Your task to perform on an android device: open wifi settings Image 0: 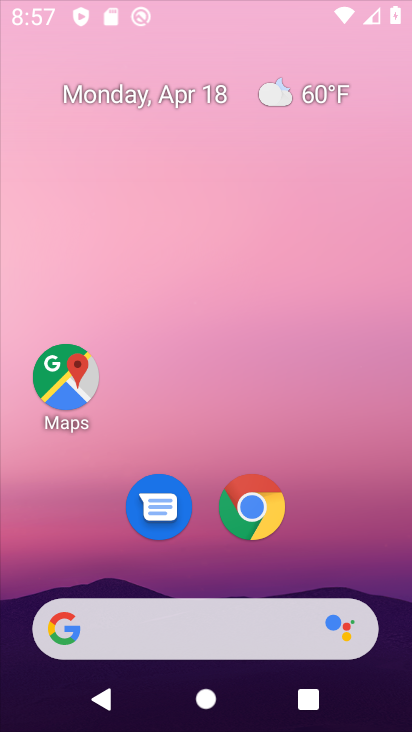
Step 0: drag from (123, 409) to (411, 400)
Your task to perform on an android device: open wifi settings Image 1: 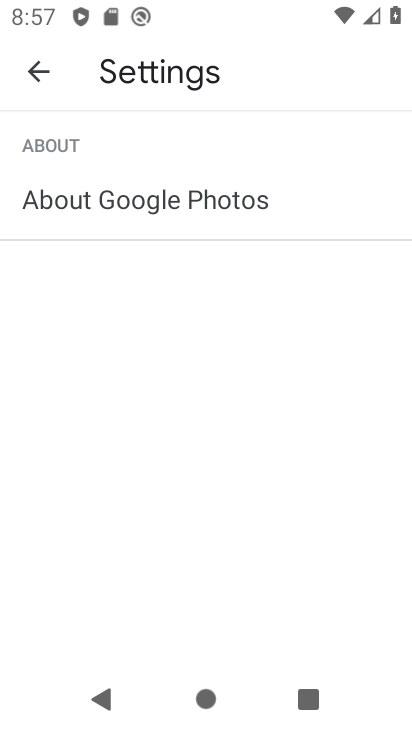
Step 1: press home button
Your task to perform on an android device: open wifi settings Image 2: 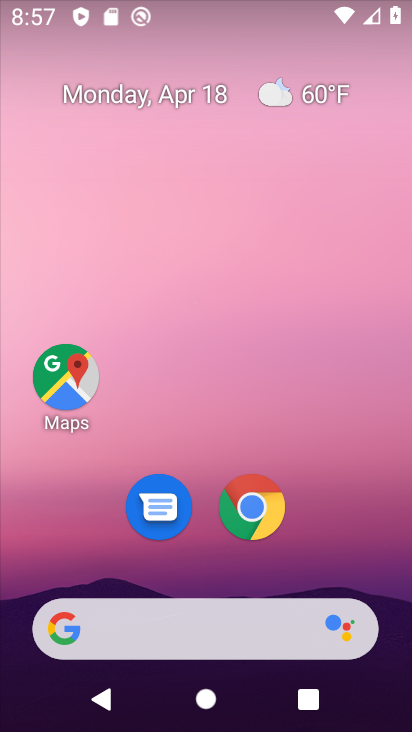
Step 2: drag from (325, 525) to (301, 138)
Your task to perform on an android device: open wifi settings Image 3: 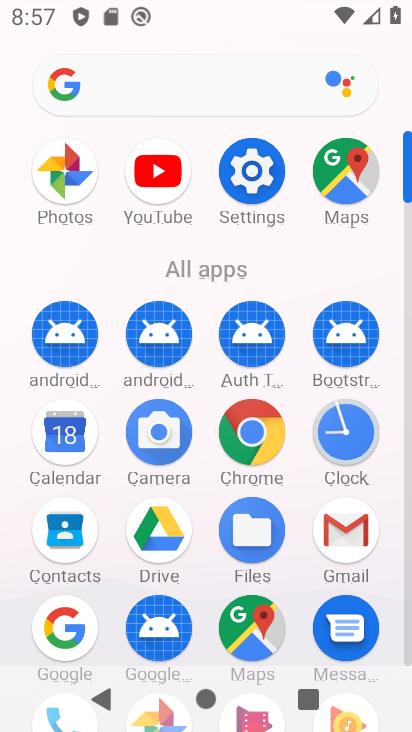
Step 3: click (261, 185)
Your task to perform on an android device: open wifi settings Image 4: 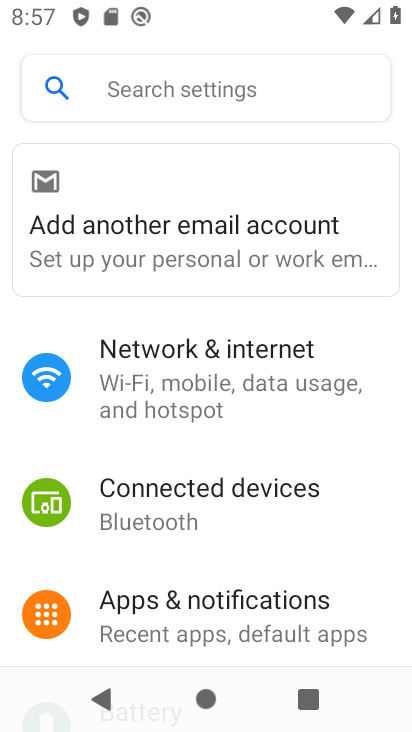
Step 4: click (231, 339)
Your task to perform on an android device: open wifi settings Image 5: 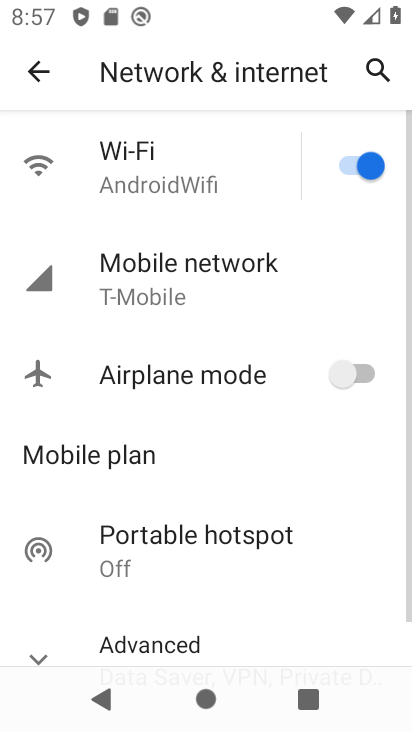
Step 5: click (120, 167)
Your task to perform on an android device: open wifi settings Image 6: 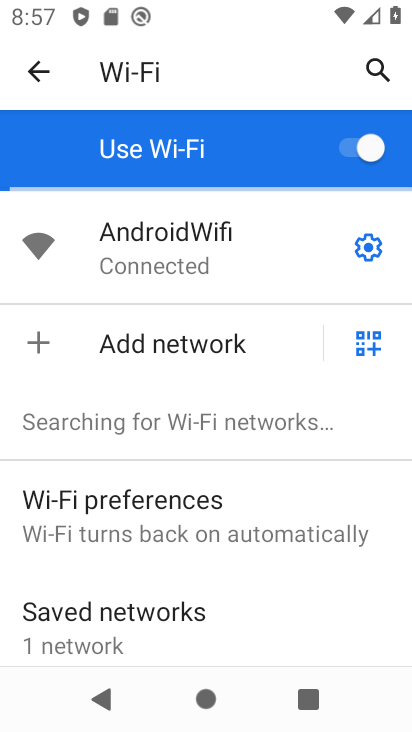
Step 6: task complete